Your task to perform on an android device: Go to ESPN.com Image 0: 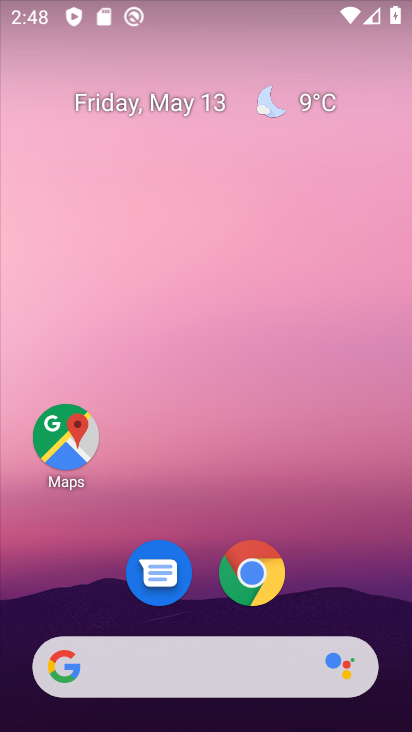
Step 0: click (254, 570)
Your task to perform on an android device: Go to ESPN.com Image 1: 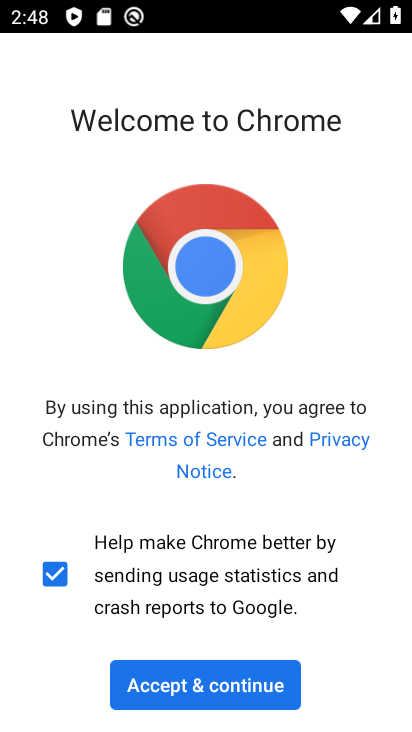
Step 1: click (178, 695)
Your task to perform on an android device: Go to ESPN.com Image 2: 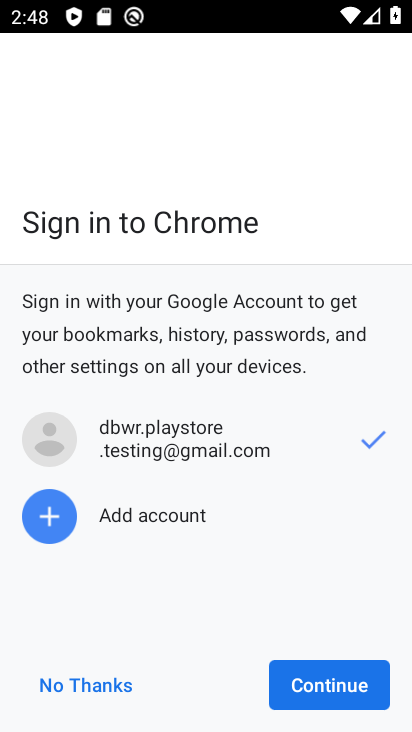
Step 2: click (317, 679)
Your task to perform on an android device: Go to ESPN.com Image 3: 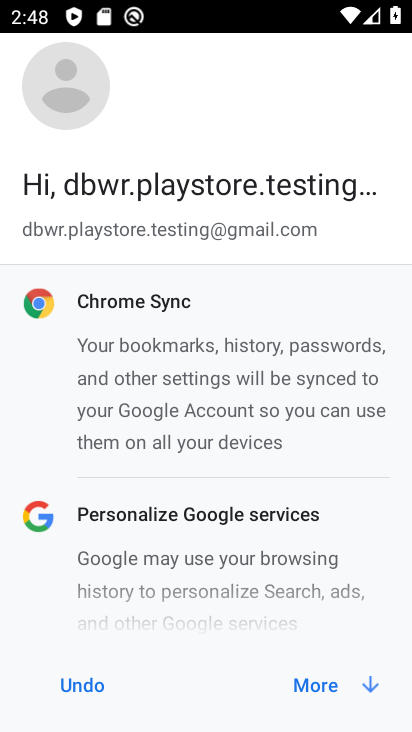
Step 3: click (329, 700)
Your task to perform on an android device: Go to ESPN.com Image 4: 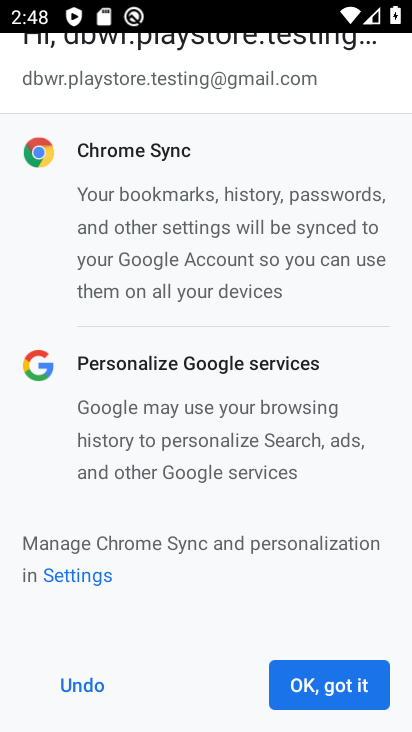
Step 4: click (336, 699)
Your task to perform on an android device: Go to ESPN.com Image 5: 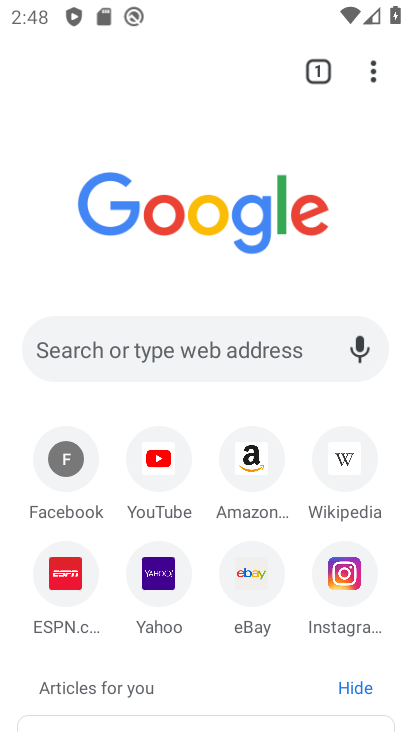
Step 5: click (63, 589)
Your task to perform on an android device: Go to ESPN.com Image 6: 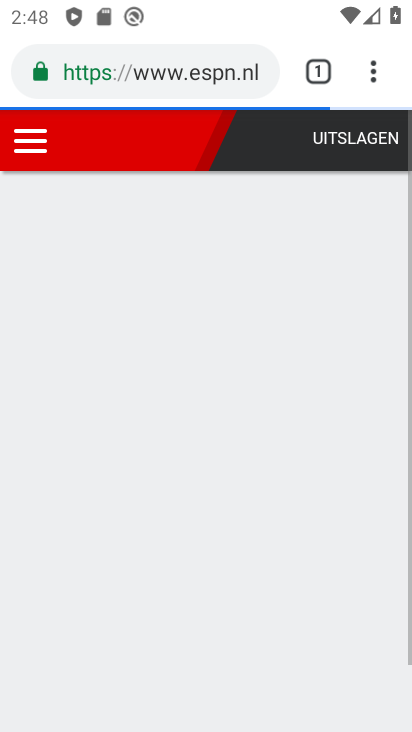
Step 6: task complete